Your task to perform on an android device: Clear all items from cart on target.com. Add "acer nitro" to the cart on target.com, then select checkout. Image 0: 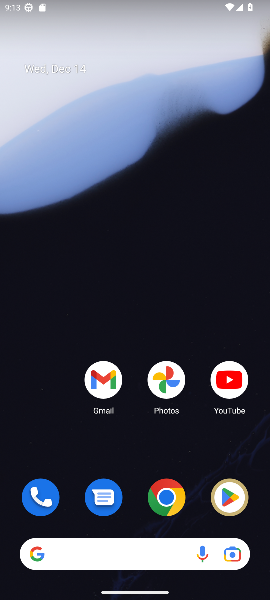
Step 0: click (173, 498)
Your task to perform on an android device: Clear all items from cart on target.com. Add "acer nitro" to the cart on target.com, then select checkout. Image 1: 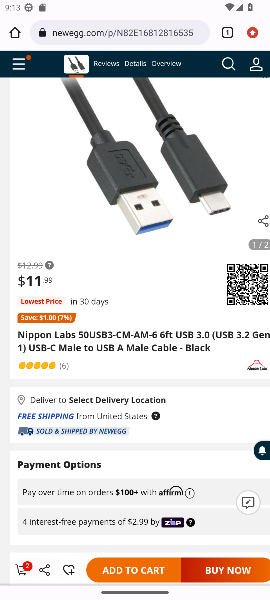
Step 1: click (99, 35)
Your task to perform on an android device: Clear all items from cart on target.com. Add "acer nitro" to the cart on target.com, then select checkout. Image 2: 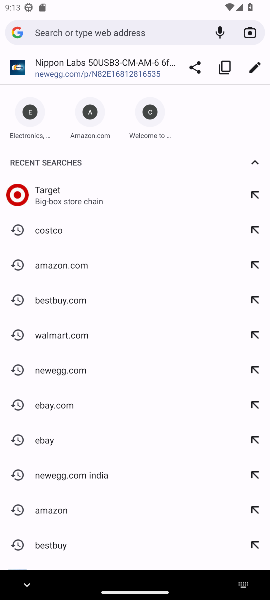
Step 2: type "target.com"
Your task to perform on an android device: Clear all items from cart on target.com. Add "acer nitro" to the cart on target.com, then select checkout. Image 3: 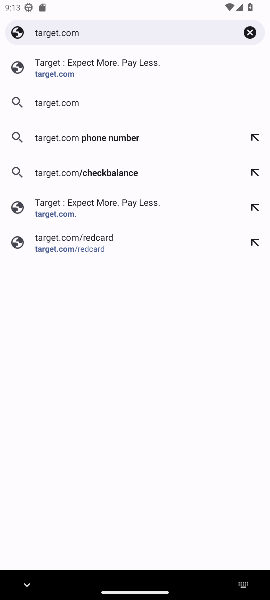
Step 3: task complete